Your task to perform on an android device: What is the recent news? Image 0: 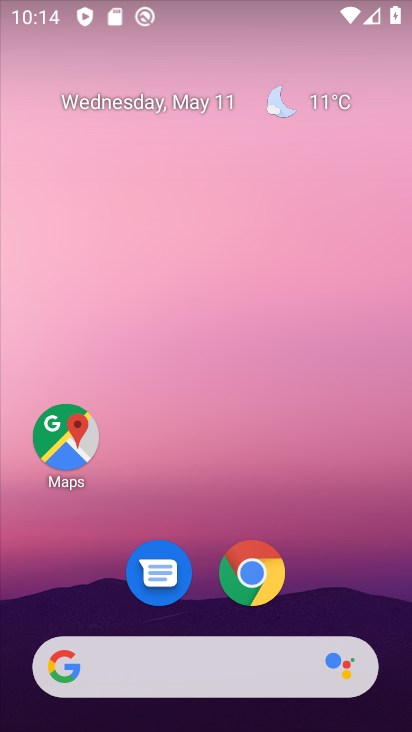
Step 0: click (192, 651)
Your task to perform on an android device: What is the recent news? Image 1: 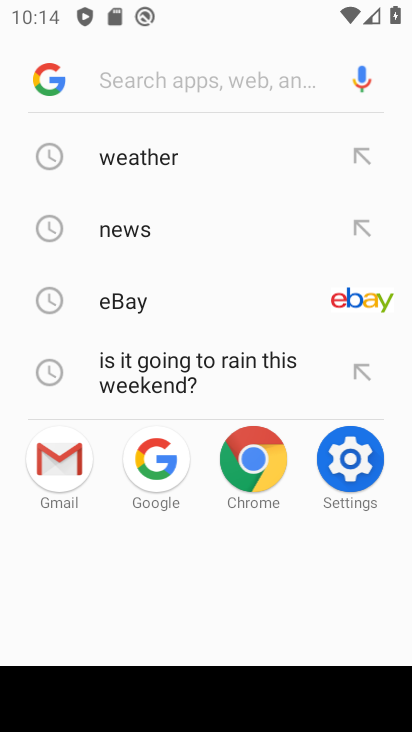
Step 1: type "recent news"
Your task to perform on an android device: What is the recent news? Image 2: 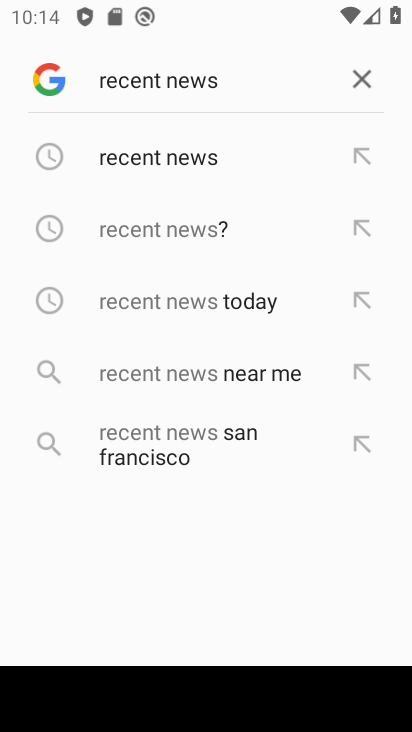
Step 2: click (163, 160)
Your task to perform on an android device: What is the recent news? Image 3: 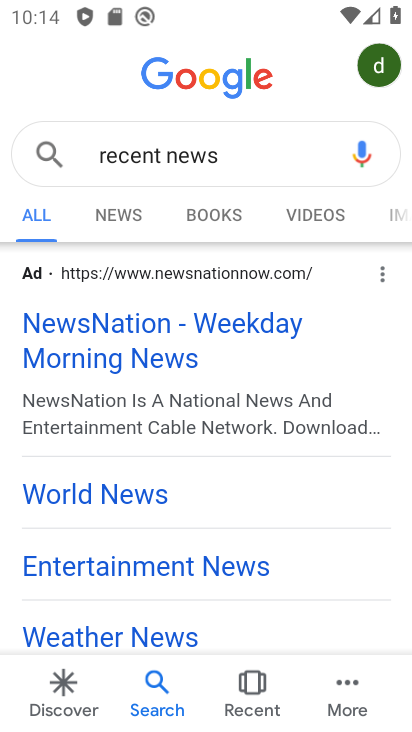
Step 3: task complete